Your task to perform on an android device: add a label to a message in the gmail app Image 0: 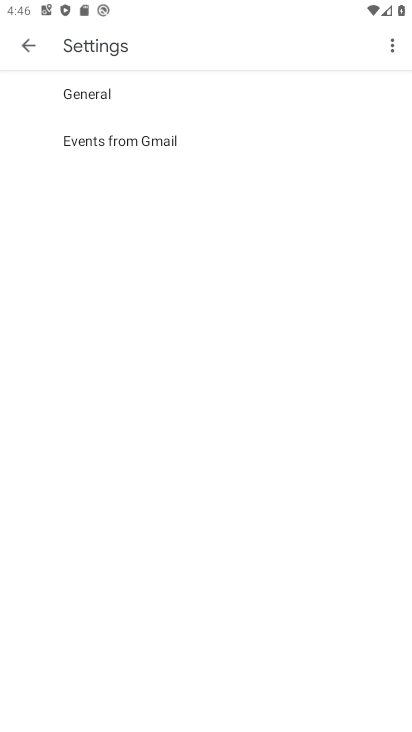
Step 0: press back button
Your task to perform on an android device: add a label to a message in the gmail app Image 1: 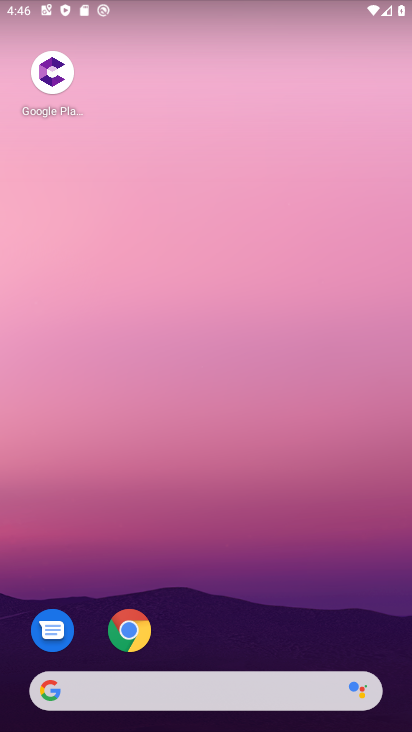
Step 1: drag from (256, 591) to (263, 241)
Your task to perform on an android device: add a label to a message in the gmail app Image 2: 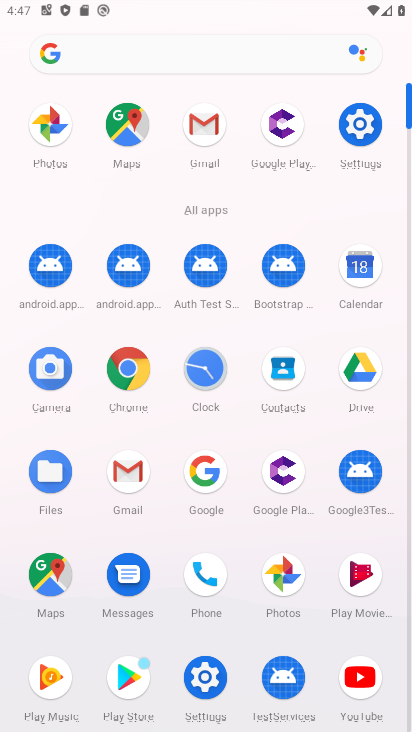
Step 2: click (204, 125)
Your task to perform on an android device: add a label to a message in the gmail app Image 3: 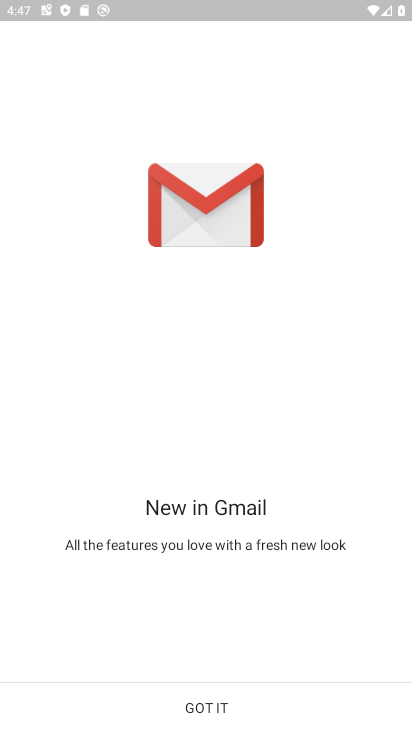
Step 3: click (202, 710)
Your task to perform on an android device: add a label to a message in the gmail app Image 4: 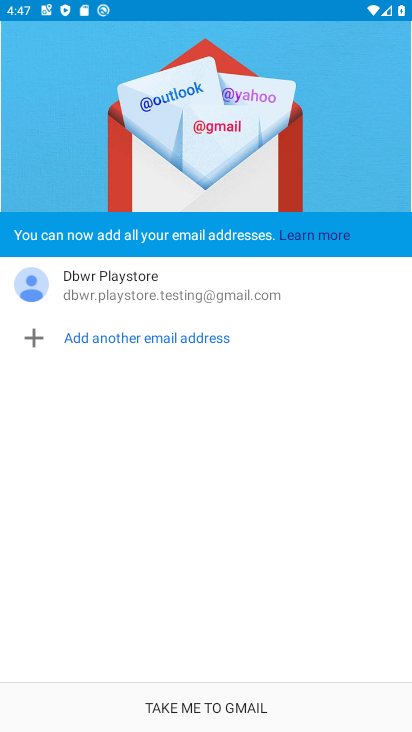
Step 4: click (197, 707)
Your task to perform on an android device: add a label to a message in the gmail app Image 5: 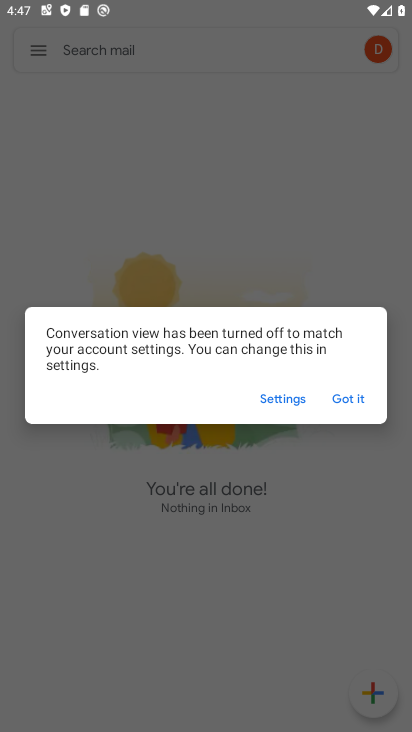
Step 5: click (350, 398)
Your task to perform on an android device: add a label to a message in the gmail app Image 6: 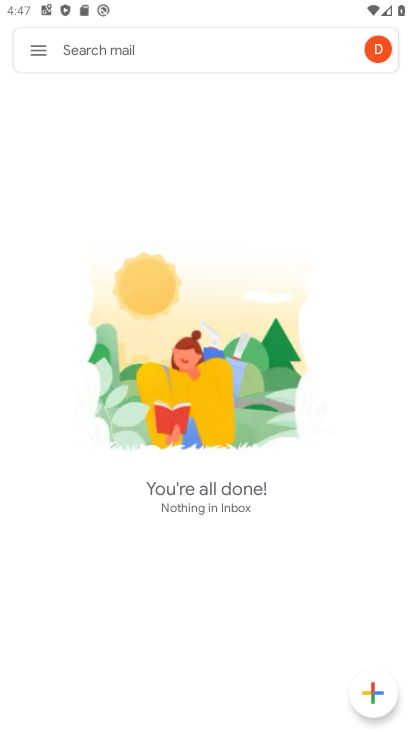
Step 6: click (38, 51)
Your task to perform on an android device: add a label to a message in the gmail app Image 7: 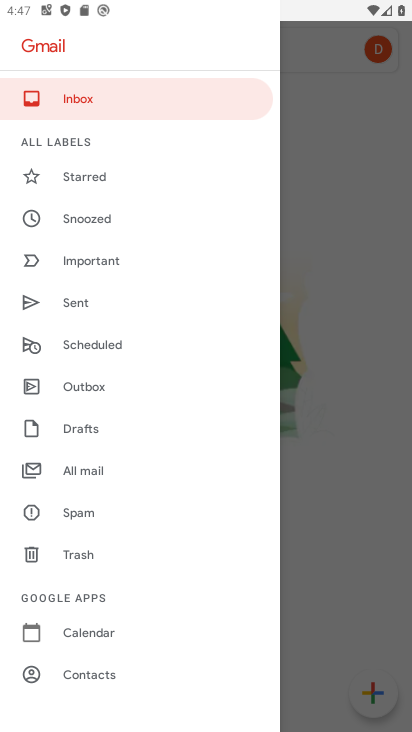
Step 7: click (84, 478)
Your task to perform on an android device: add a label to a message in the gmail app Image 8: 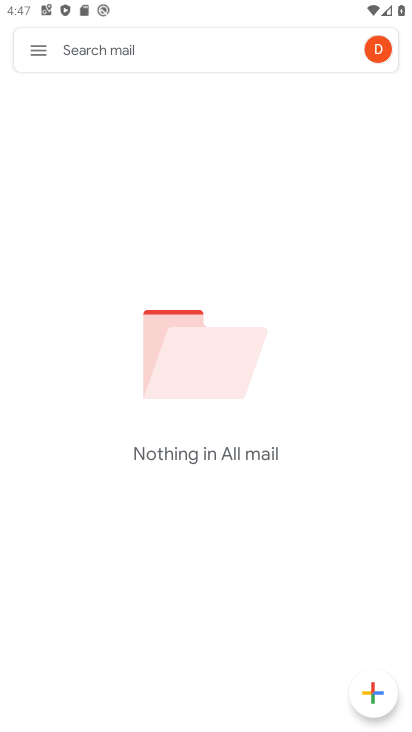
Step 8: task complete